Your task to perform on an android device: toggle show notifications on the lock screen Image 0: 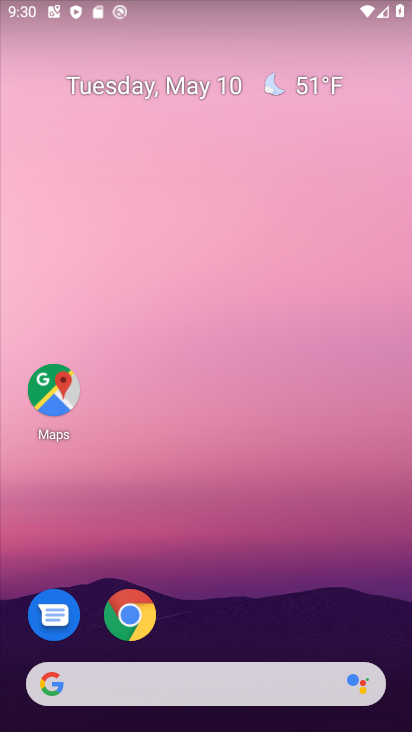
Step 0: drag from (239, 601) to (242, 131)
Your task to perform on an android device: toggle show notifications on the lock screen Image 1: 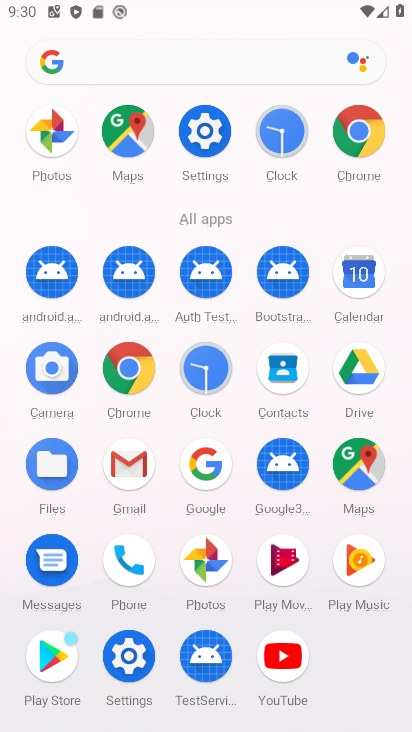
Step 1: click (208, 131)
Your task to perform on an android device: toggle show notifications on the lock screen Image 2: 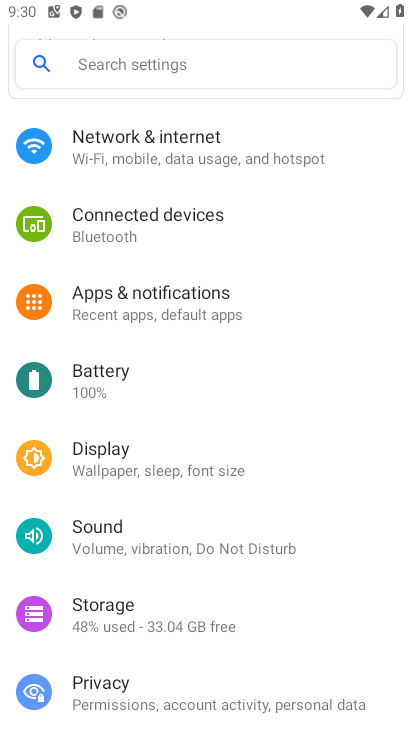
Step 2: click (216, 312)
Your task to perform on an android device: toggle show notifications on the lock screen Image 3: 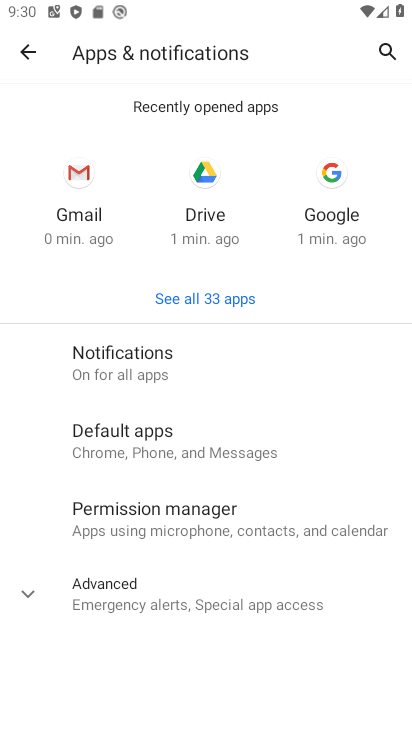
Step 3: click (196, 376)
Your task to perform on an android device: toggle show notifications on the lock screen Image 4: 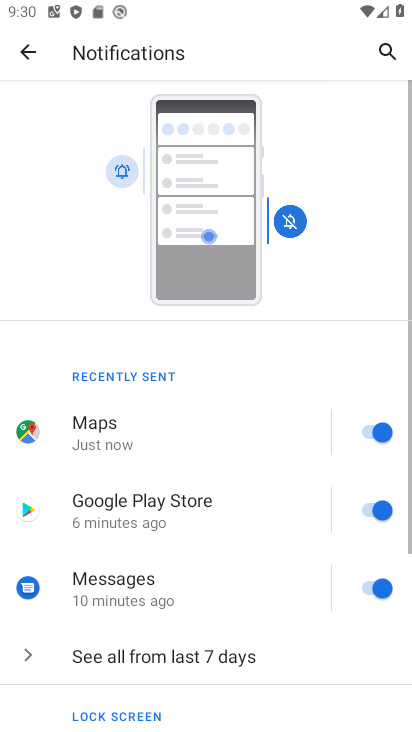
Step 4: drag from (243, 621) to (288, 87)
Your task to perform on an android device: toggle show notifications on the lock screen Image 5: 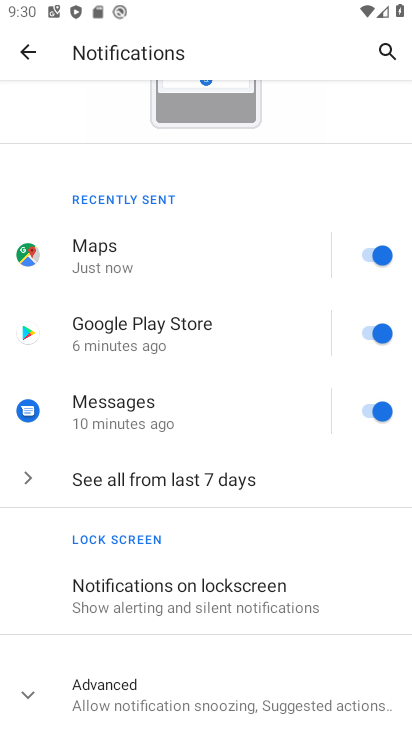
Step 5: click (180, 581)
Your task to perform on an android device: toggle show notifications on the lock screen Image 6: 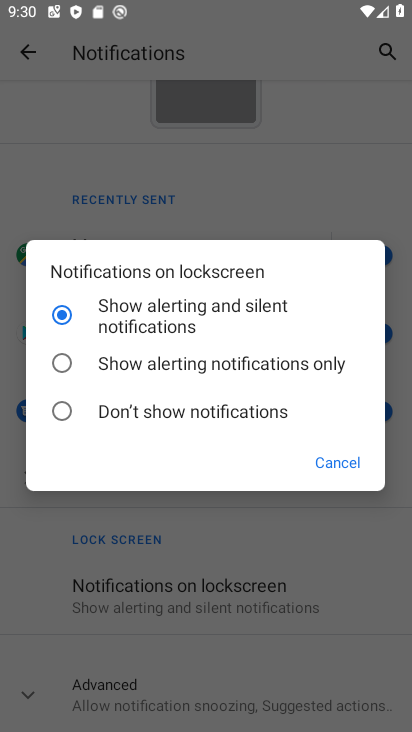
Step 6: click (132, 415)
Your task to perform on an android device: toggle show notifications on the lock screen Image 7: 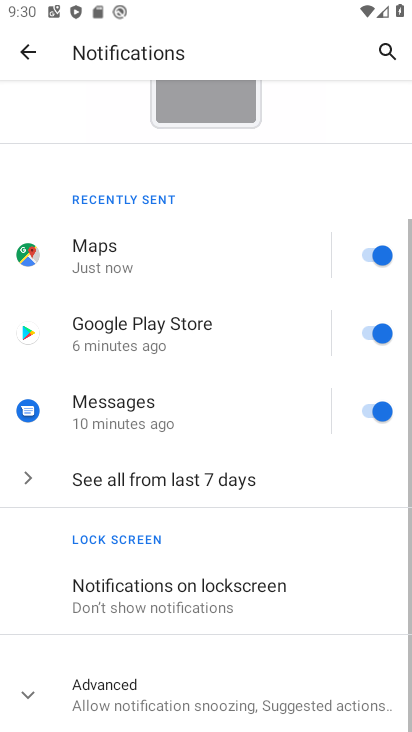
Step 7: task complete